Your task to perform on an android device: Open wifi settings Image 0: 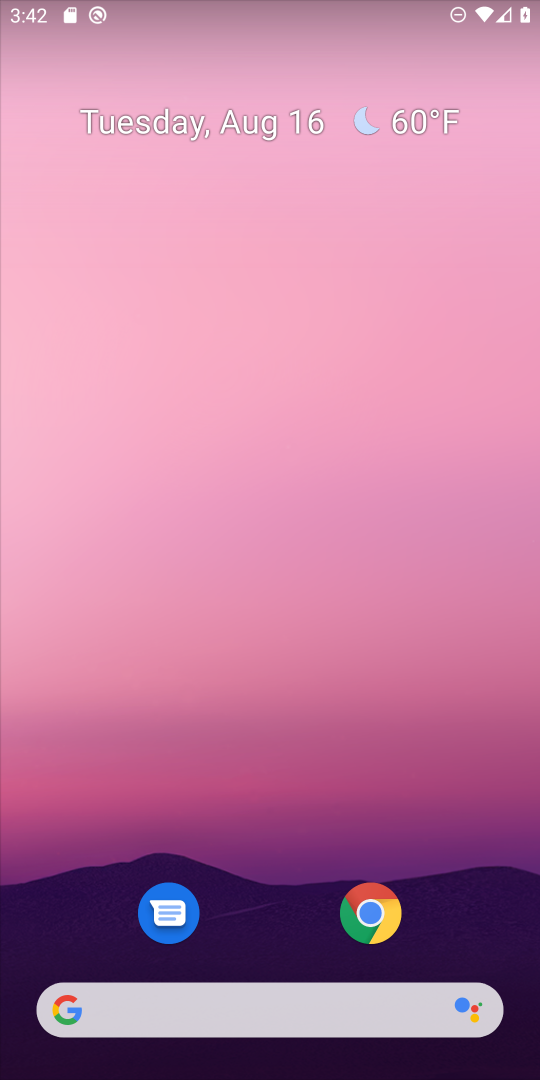
Step 0: drag from (497, 910) to (444, 111)
Your task to perform on an android device: Open wifi settings Image 1: 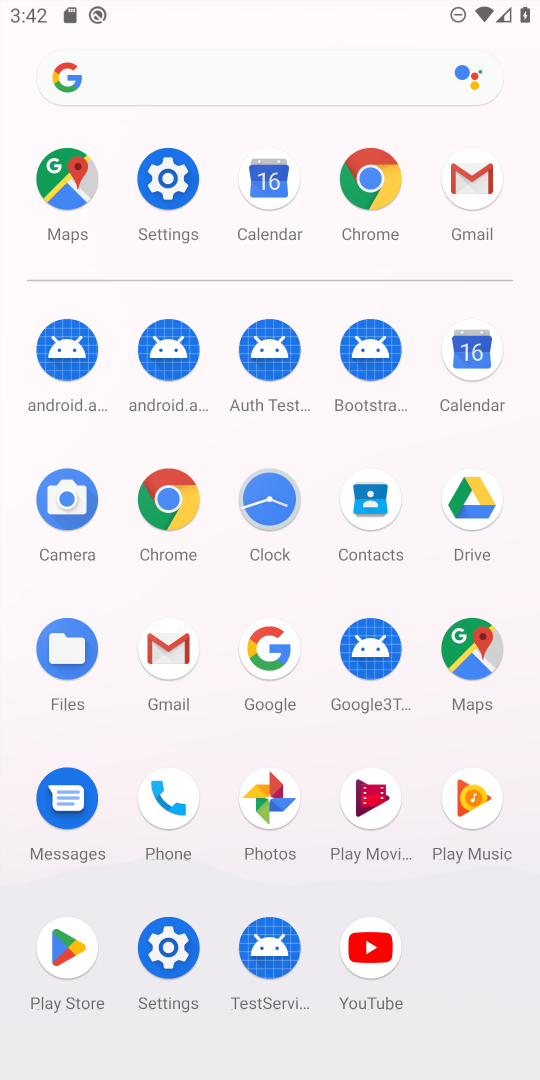
Step 1: click (168, 948)
Your task to perform on an android device: Open wifi settings Image 2: 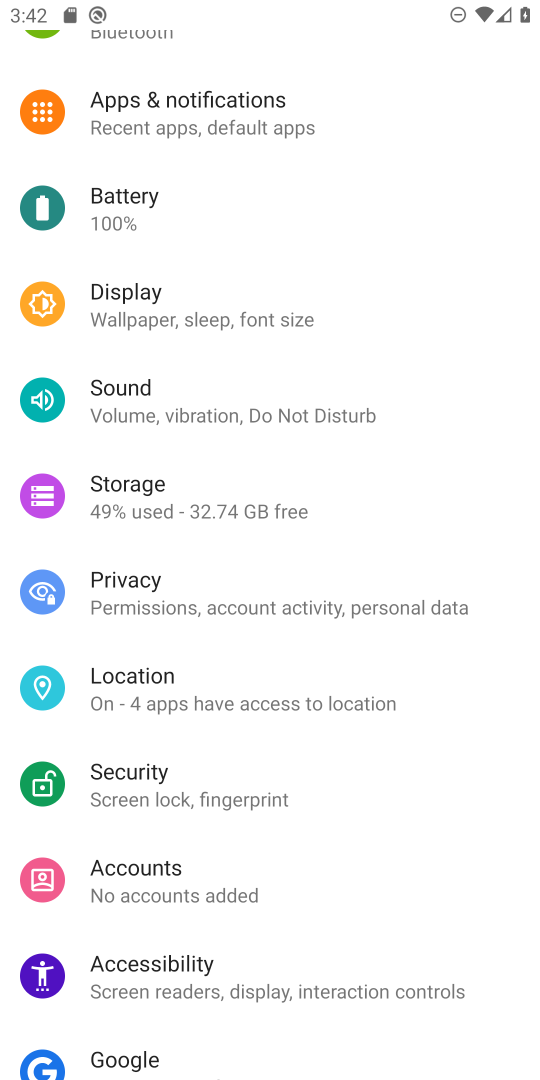
Step 2: drag from (407, 150) to (402, 584)
Your task to perform on an android device: Open wifi settings Image 3: 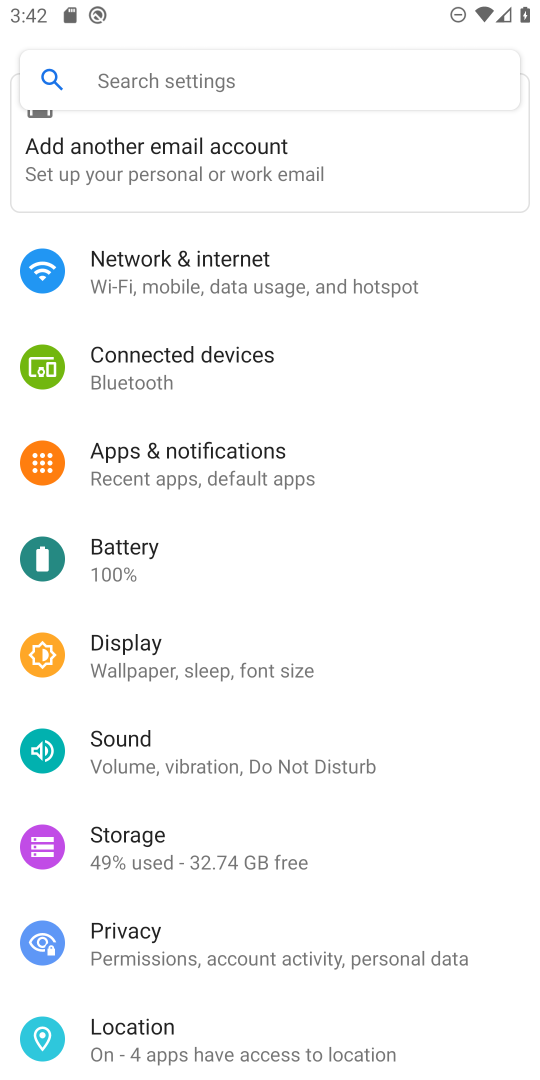
Step 3: click (169, 260)
Your task to perform on an android device: Open wifi settings Image 4: 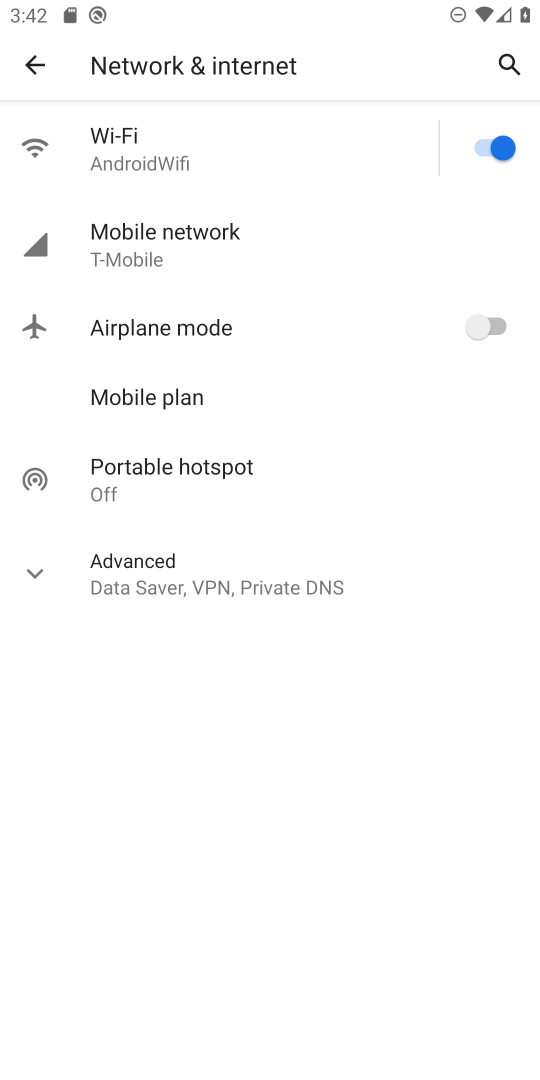
Step 4: click (150, 148)
Your task to perform on an android device: Open wifi settings Image 5: 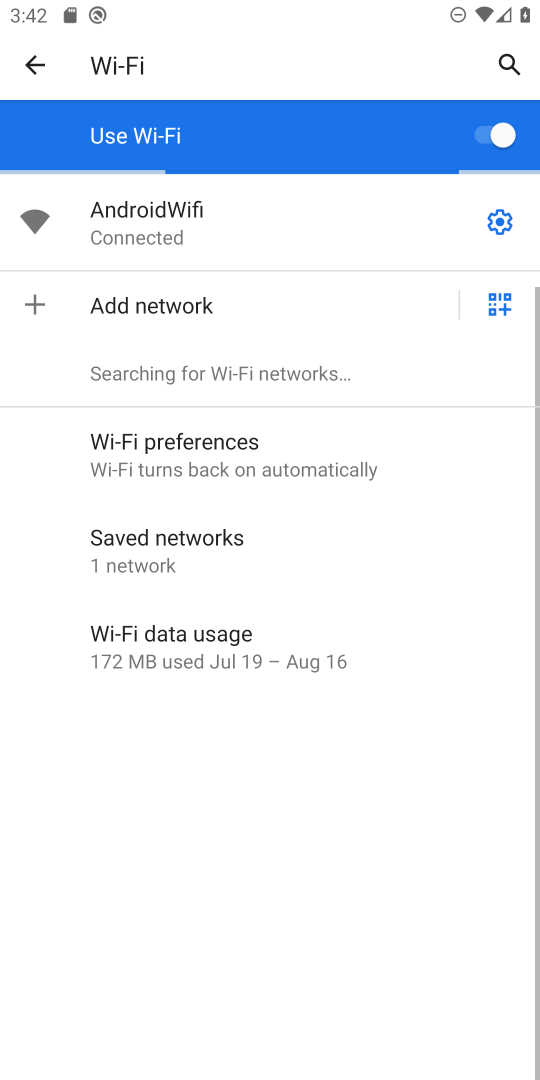
Step 5: click (501, 219)
Your task to perform on an android device: Open wifi settings Image 6: 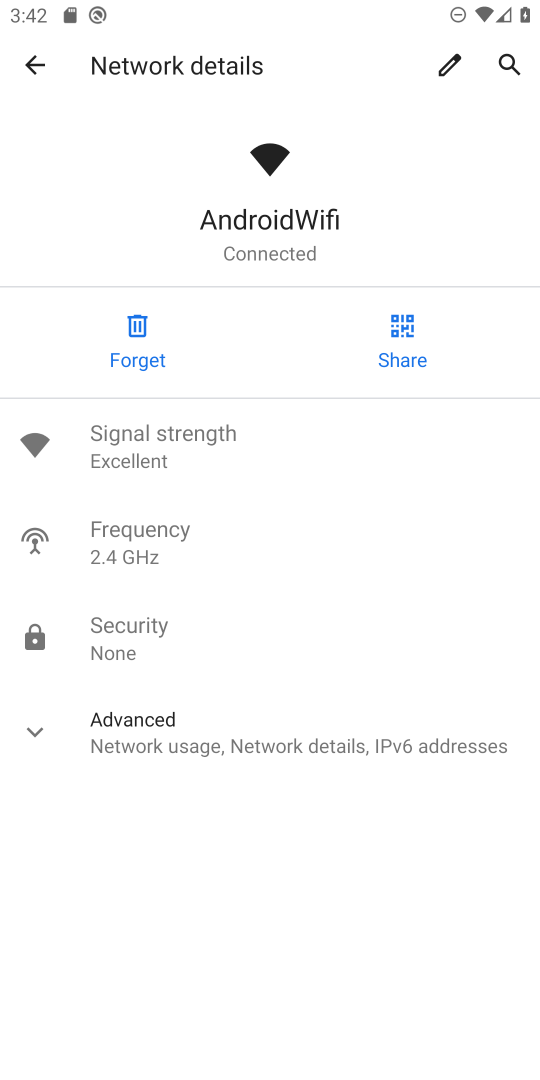
Step 6: task complete